Your task to perform on an android device: Find coffee shops on Maps Image 0: 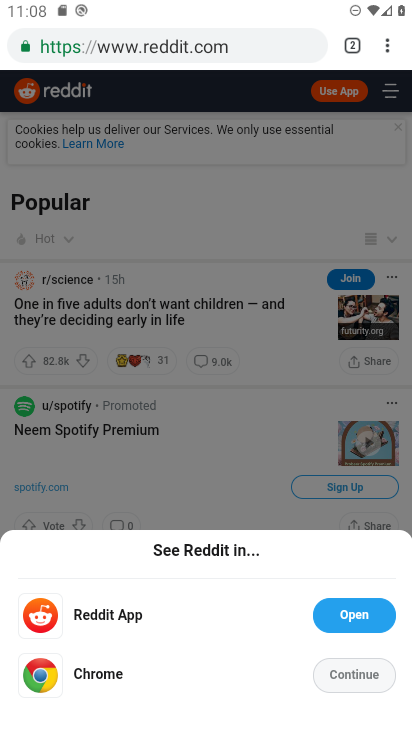
Step 0: press home button
Your task to perform on an android device: Find coffee shops on Maps Image 1: 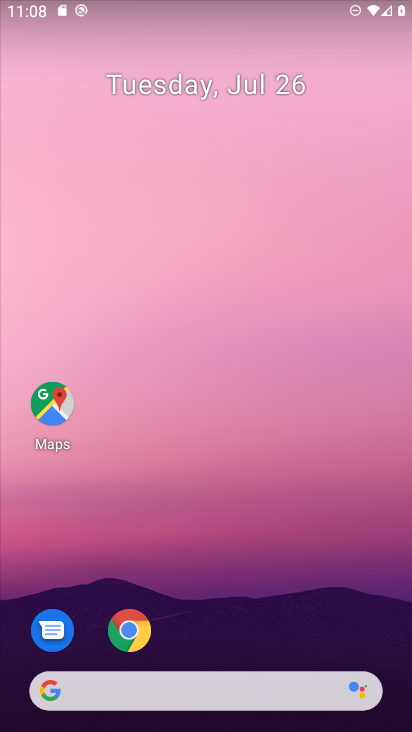
Step 1: click (55, 404)
Your task to perform on an android device: Find coffee shops on Maps Image 2: 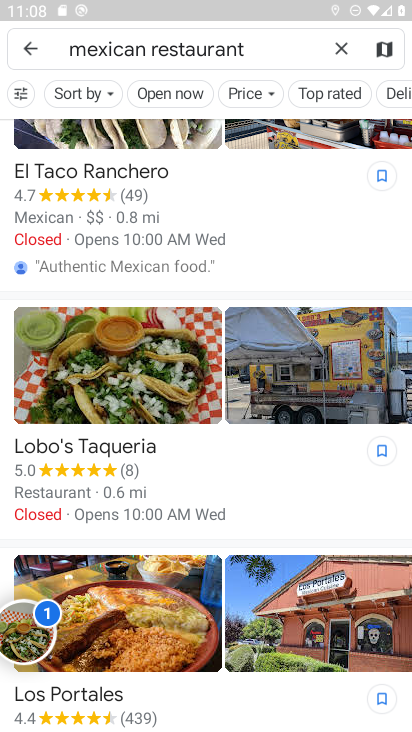
Step 2: click (338, 48)
Your task to perform on an android device: Find coffee shops on Maps Image 3: 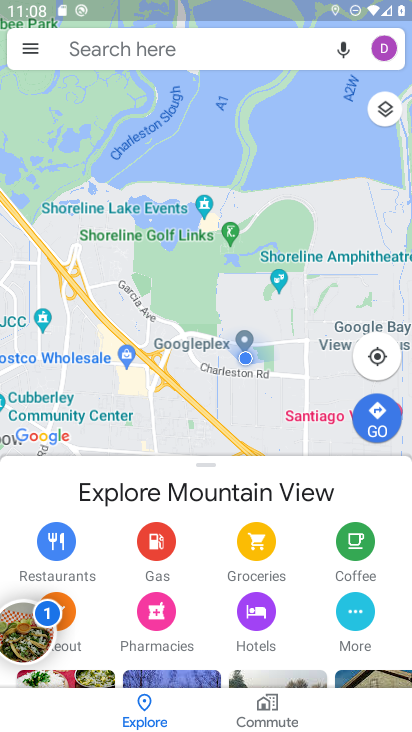
Step 3: click (24, 47)
Your task to perform on an android device: Find coffee shops on Maps Image 4: 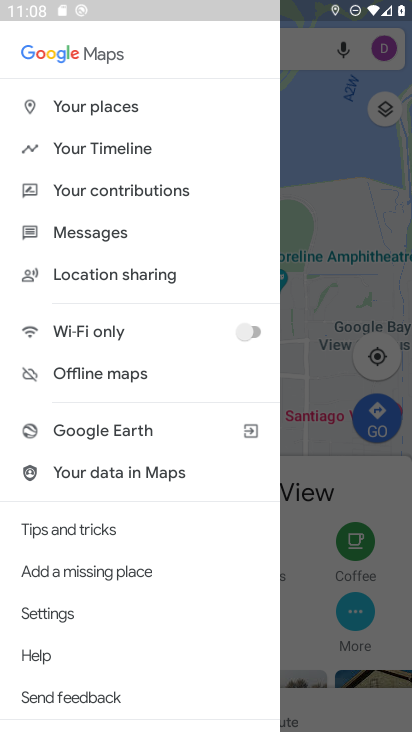
Step 4: click (323, 55)
Your task to perform on an android device: Find coffee shops on Maps Image 5: 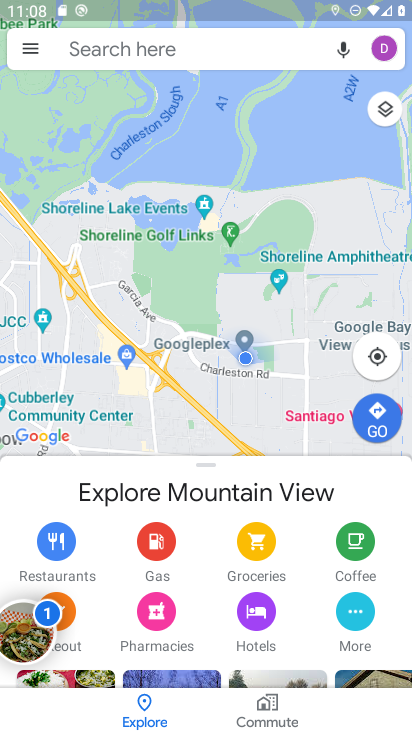
Step 5: click (131, 47)
Your task to perform on an android device: Find coffee shops on Maps Image 6: 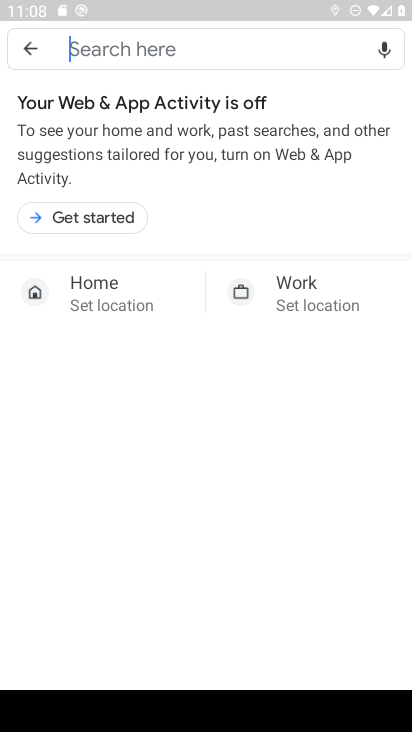
Step 6: type "coffee shops"
Your task to perform on an android device: Find coffee shops on Maps Image 7: 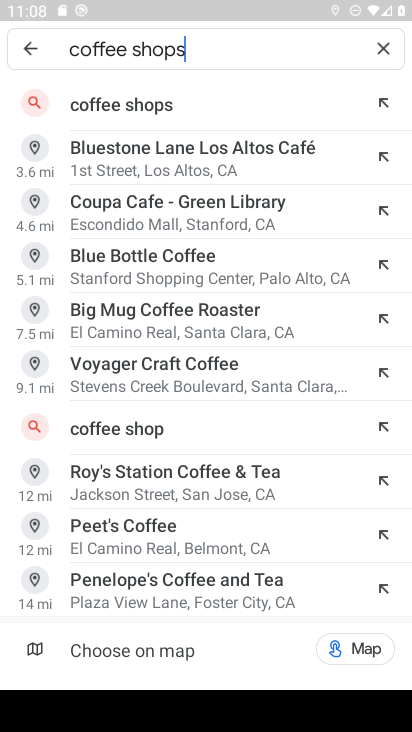
Step 7: click (107, 106)
Your task to perform on an android device: Find coffee shops on Maps Image 8: 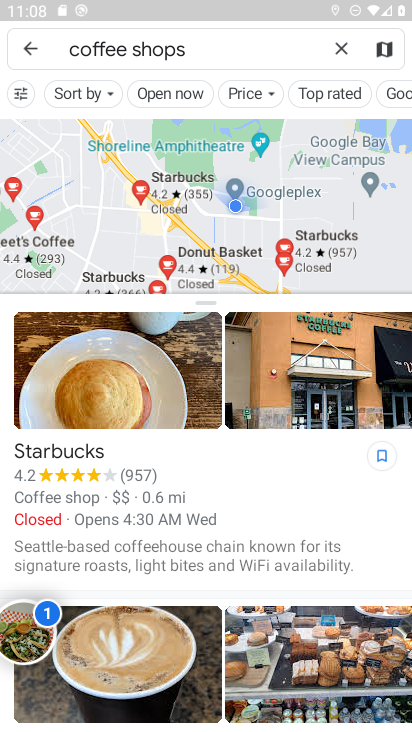
Step 8: task complete